Your task to perform on an android device: turn notification dots off Image 0: 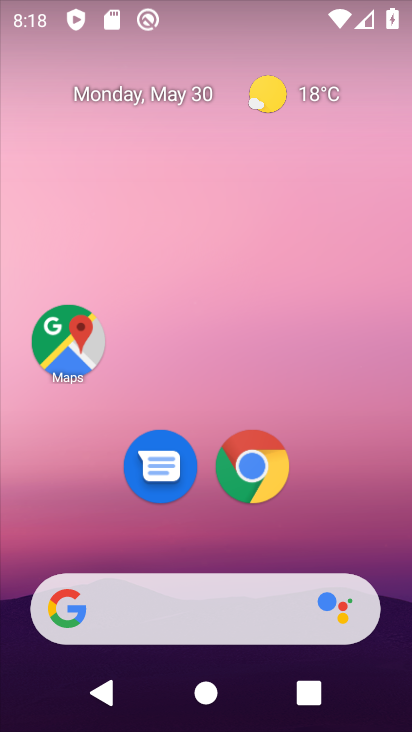
Step 0: drag from (287, 492) to (273, 74)
Your task to perform on an android device: turn notification dots off Image 1: 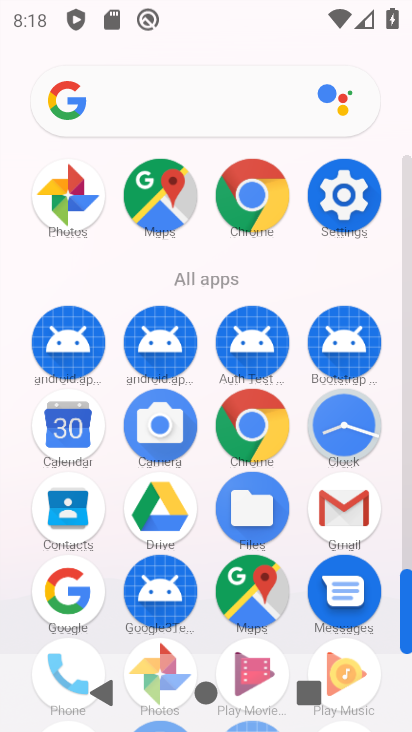
Step 1: click (341, 200)
Your task to perform on an android device: turn notification dots off Image 2: 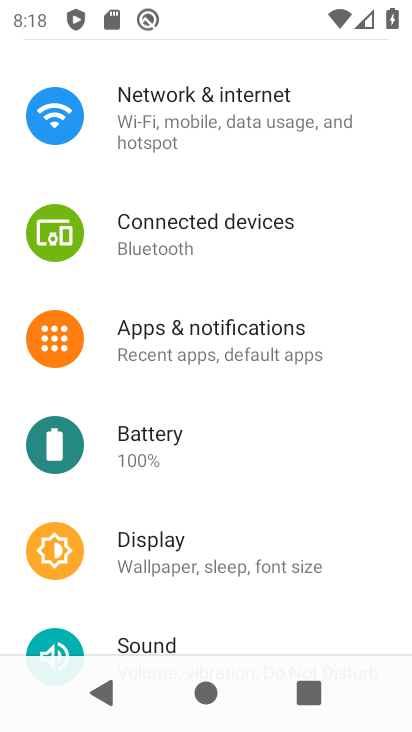
Step 2: click (176, 338)
Your task to perform on an android device: turn notification dots off Image 3: 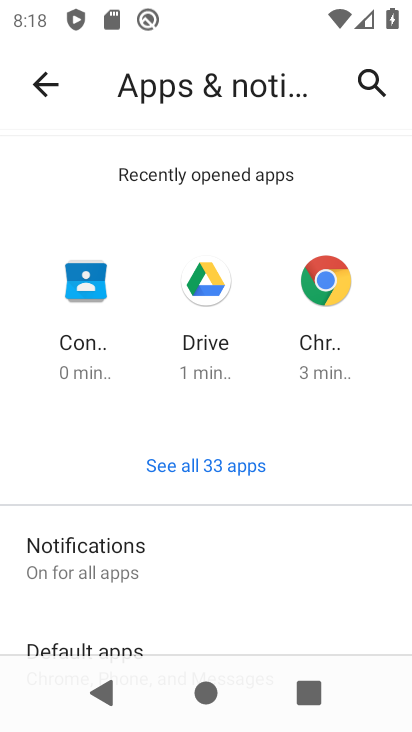
Step 3: click (67, 561)
Your task to perform on an android device: turn notification dots off Image 4: 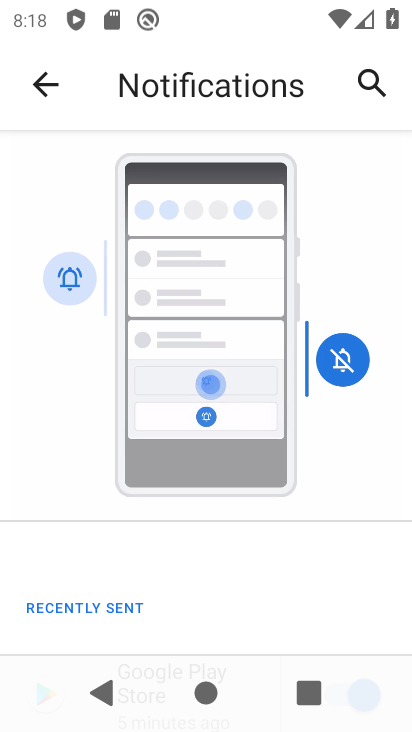
Step 4: drag from (185, 611) to (204, 141)
Your task to perform on an android device: turn notification dots off Image 5: 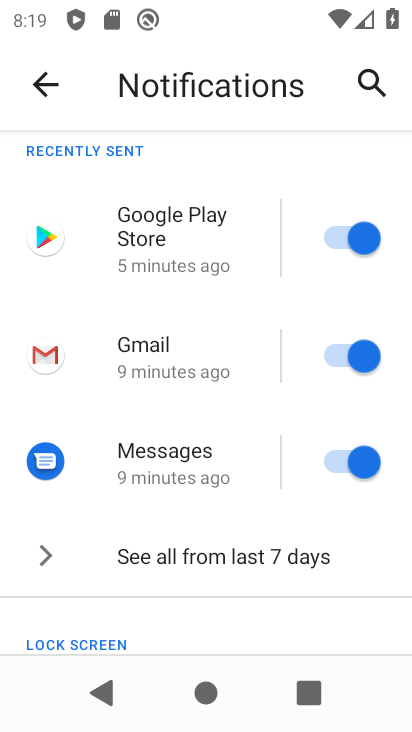
Step 5: drag from (201, 634) to (238, 187)
Your task to perform on an android device: turn notification dots off Image 6: 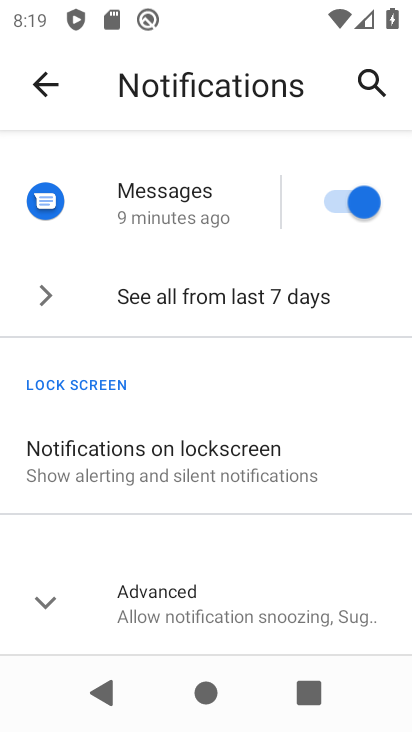
Step 6: click (202, 603)
Your task to perform on an android device: turn notification dots off Image 7: 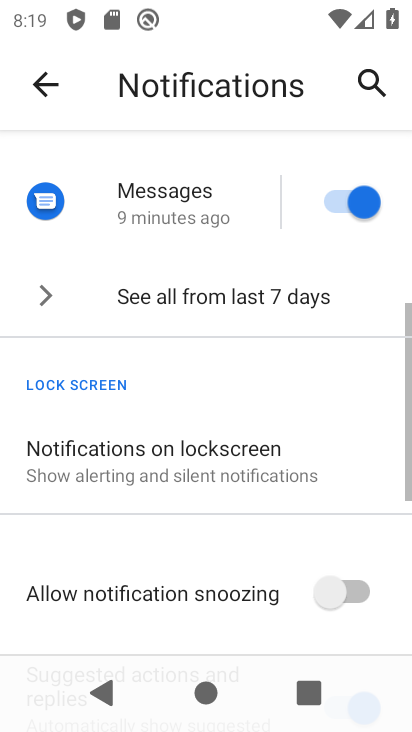
Step 7: task complete